Your task to perform on an android device: Open calendar and show me the third week of next month Image 0: 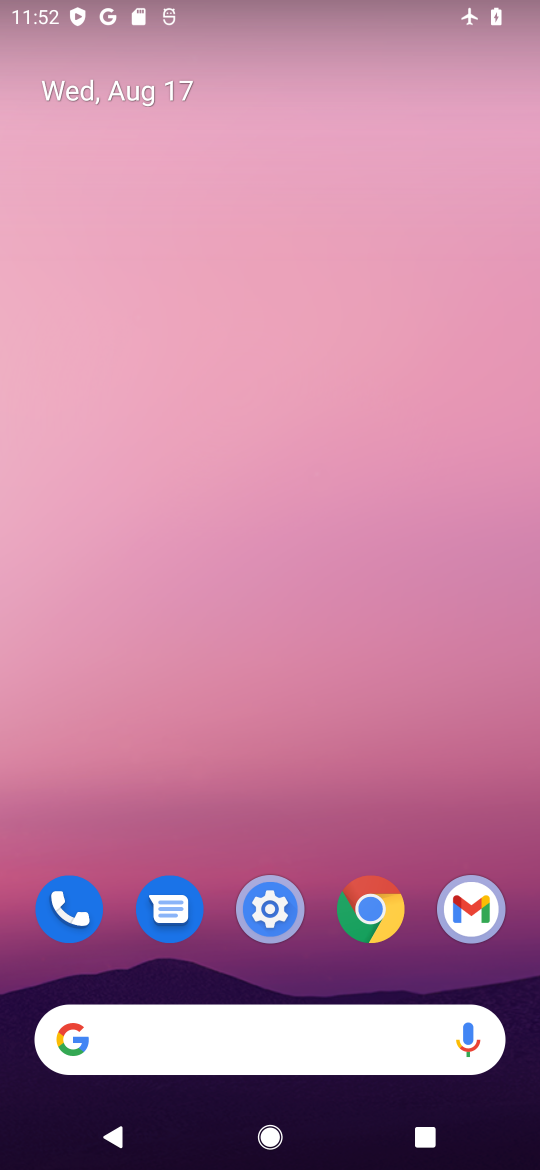
Step 0: click (287, 176)
Your task to perform on an android device: Open calendar and show me the third week of next month Image 1: 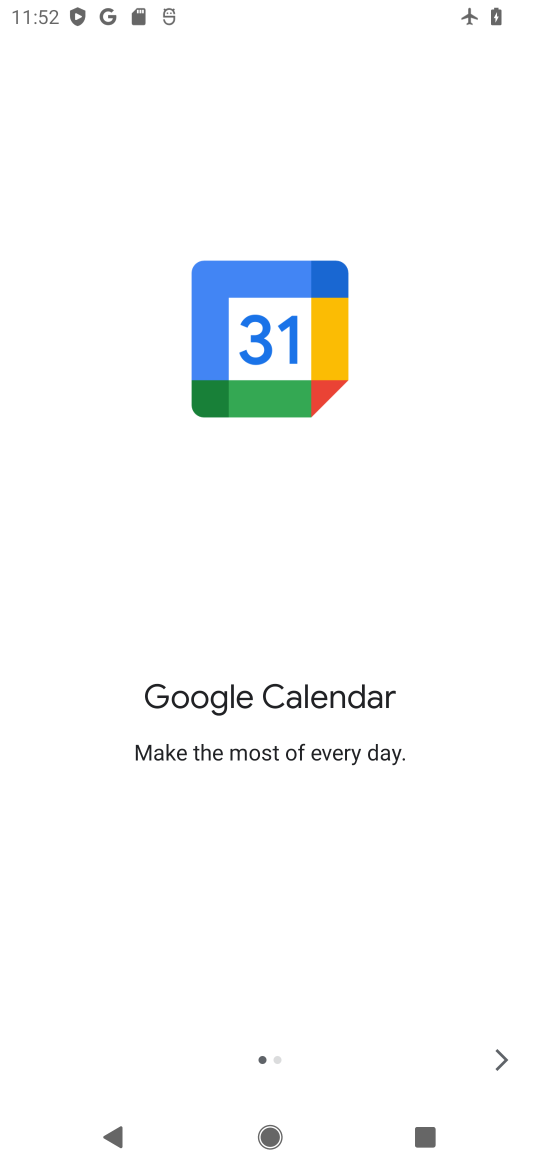
Step 1: click (493, 1063)
Your task to perform on an android device: Open calendar and show me the third week of next month Image 2: 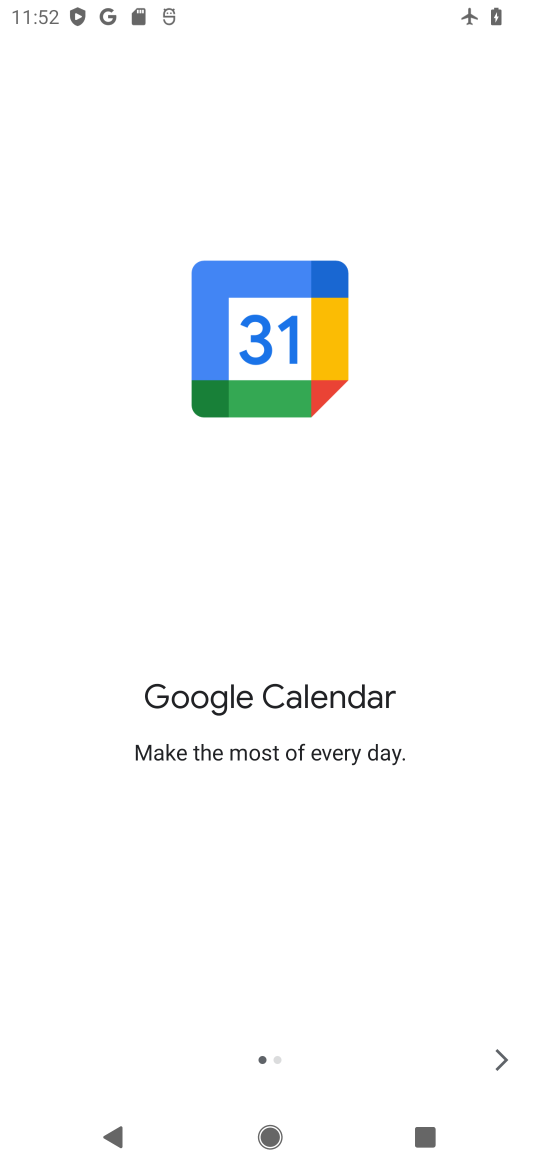
Step 2: click (493, 1063)
Your task to perform on an android device: Open calendar and show me the third week of next month Image 3: 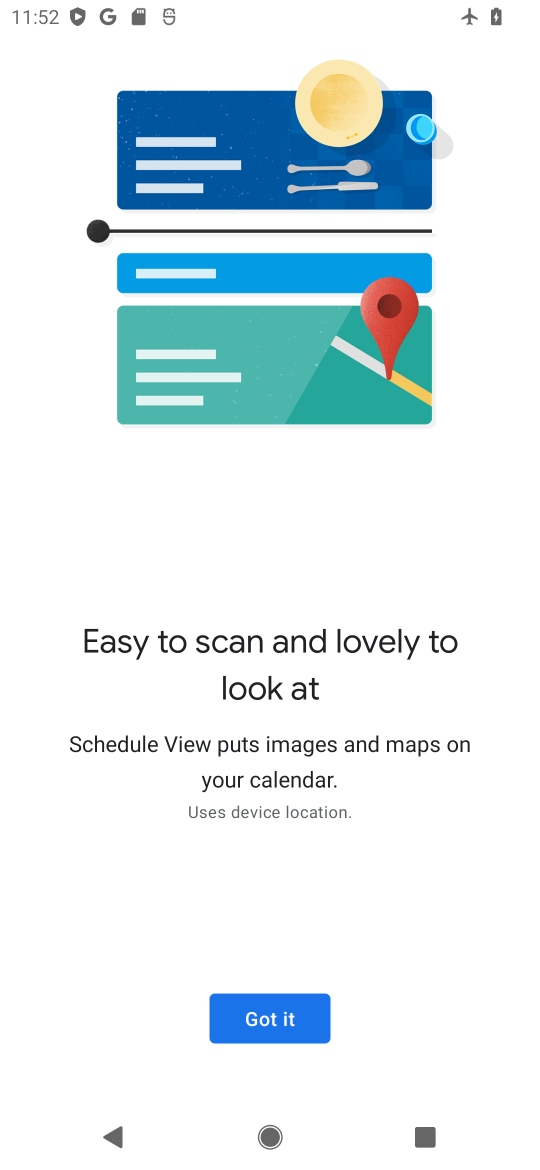
Step 3: click (262, 1016)
Your task to perform on an android device: Open calendar and show me the third week of next month Image 4: 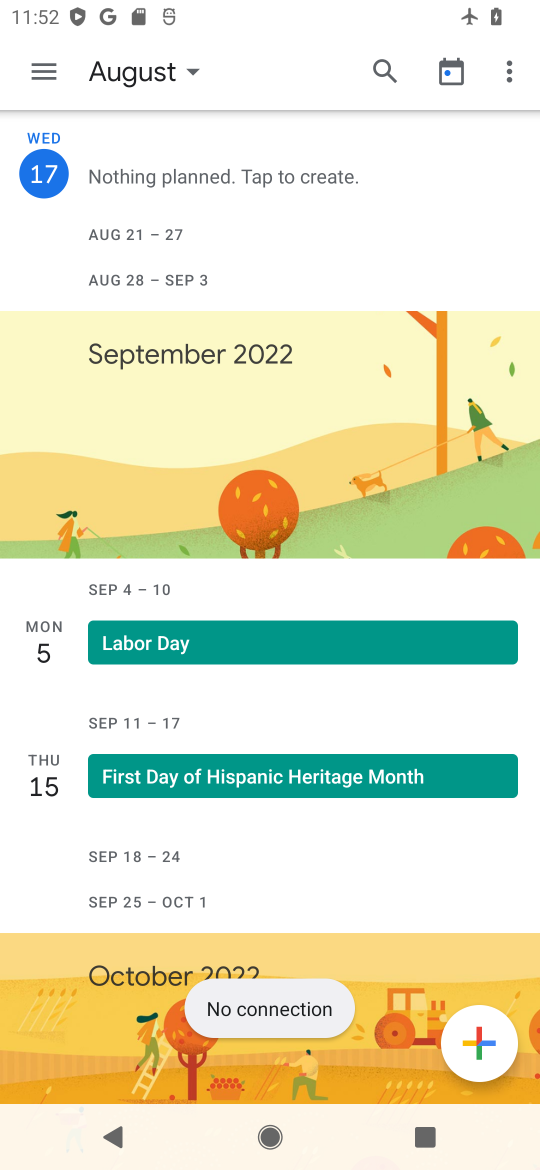
Step 4: click (40, 66)
Your task to perform on an android device: Open calendar and show me the third week of next month Image 5: 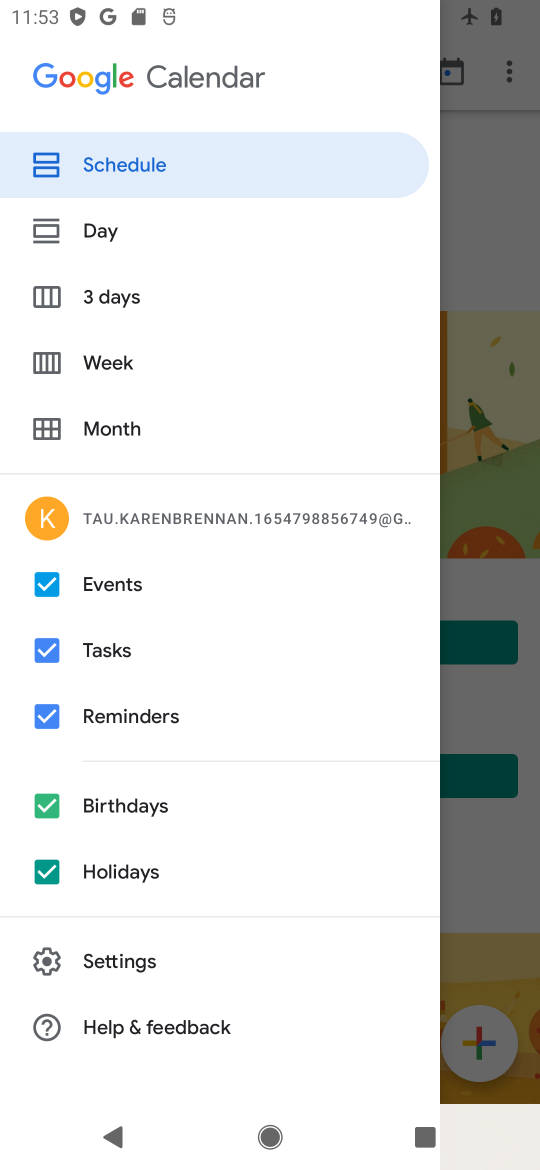
Step 5: click (110, 353)
Your task to perform on an android device: Open calendar and show me the third week of next month Image 6: 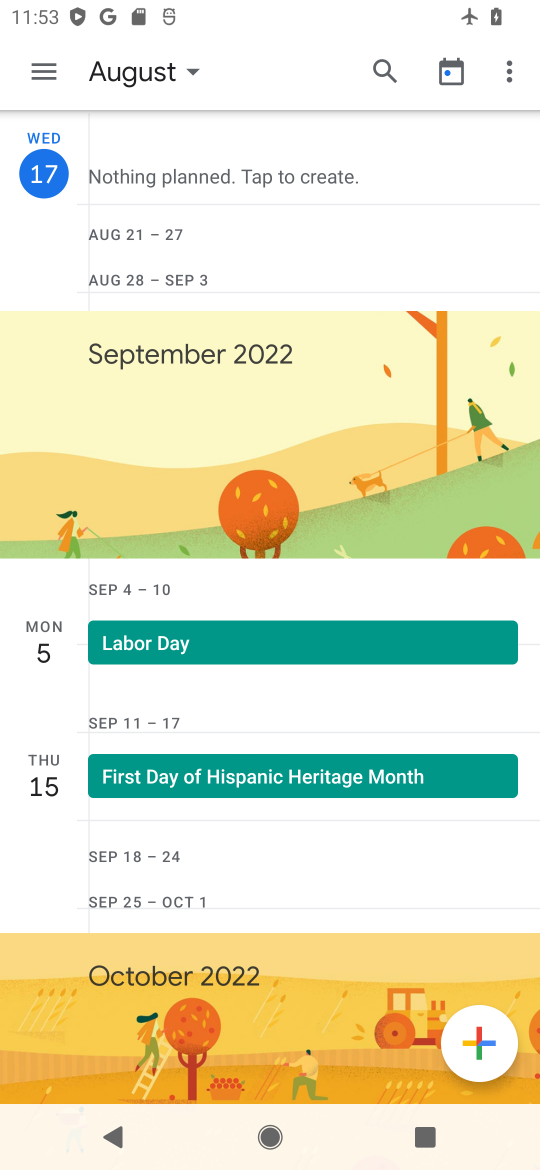
Step 6: click (183, 64)
Your task to perform on an android device: Open calendar and show me the third week of next month Image 7: 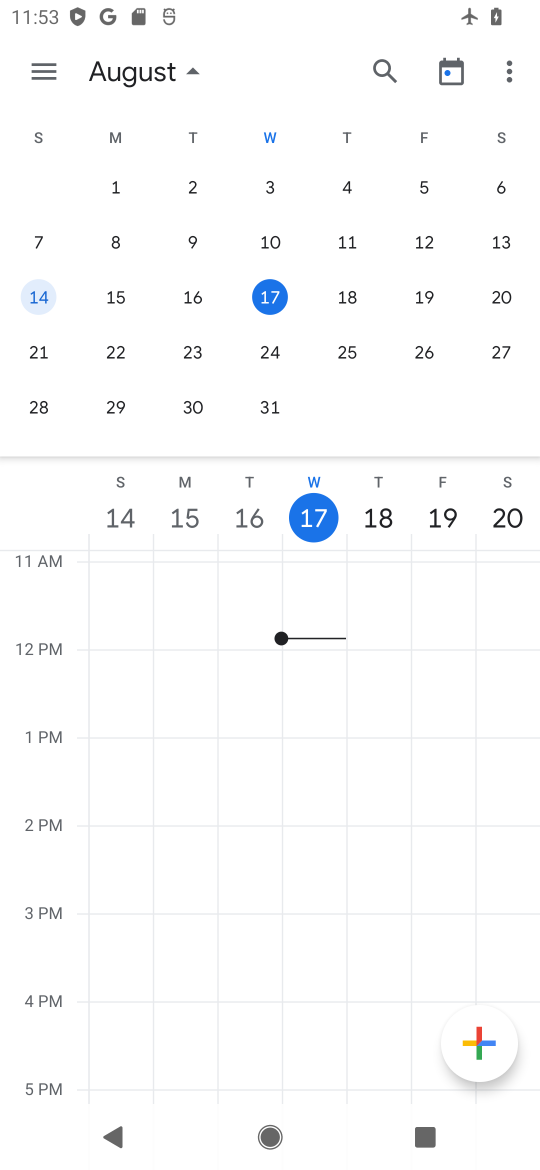
Step 7: drag from (440, 285) to (34, 242)
Your task to perform on an android device: Open calendar and show me the third week of next month Image 8: 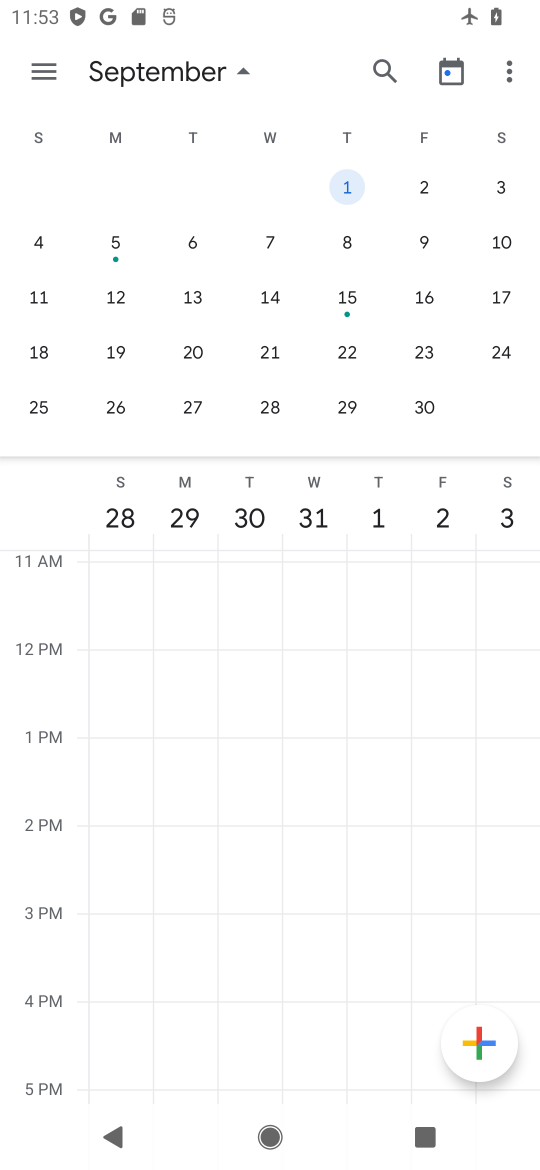
Step 8: click (264, 293)
Your task to perform on an android device: Open calendar and show me the third week of next month Image 9: 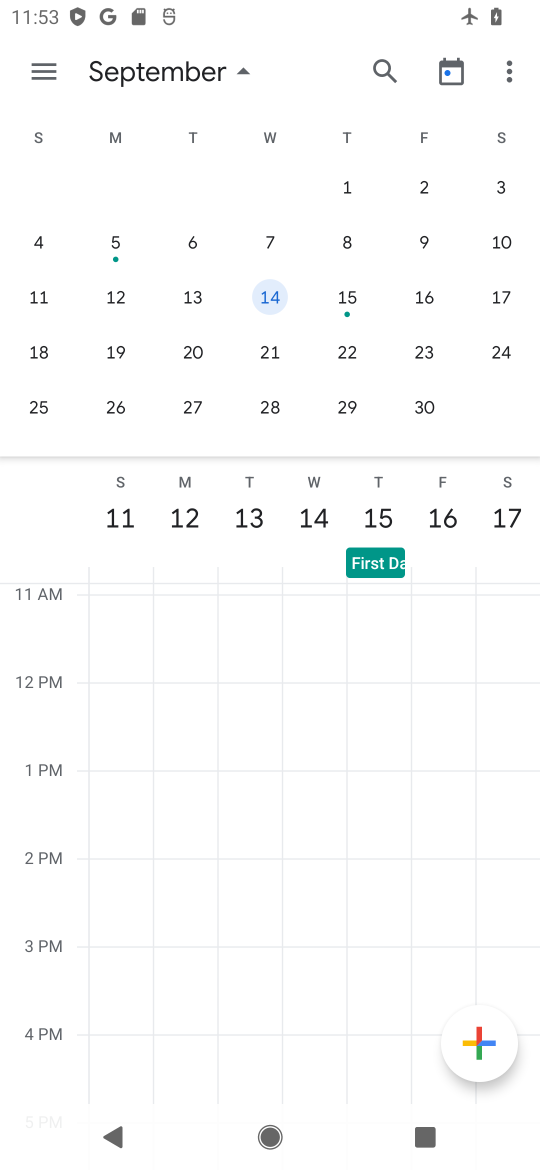
Step 9: task complete